Your task to perform on an android device: Search for Italian restaurants on Maps Image 0: 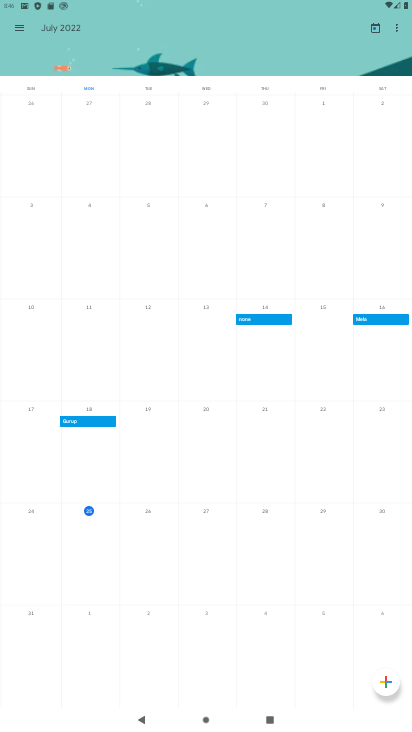
Step 0: press home button
Your task to perform on an android device: Search for Italian restaurants on Maps Image 1: 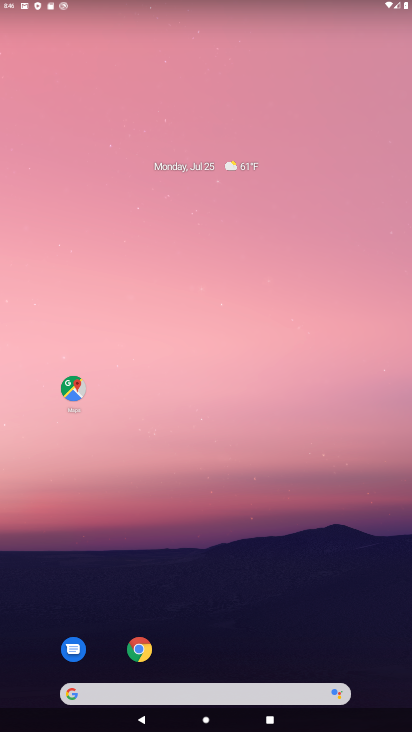
Step 1: click (75, 394)
Your task to perform on an android device: Search for Italian restaurants on Maps Image 2: 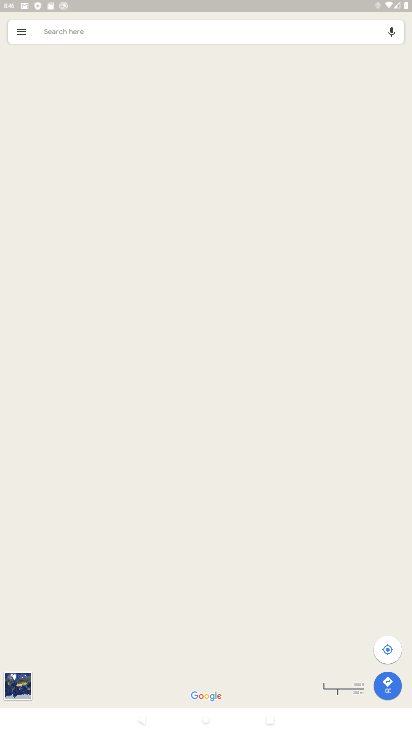
Step 2: click (231, 30)
Your task to perform on an android device: Search for Italian restaurants on Maps Image 3: 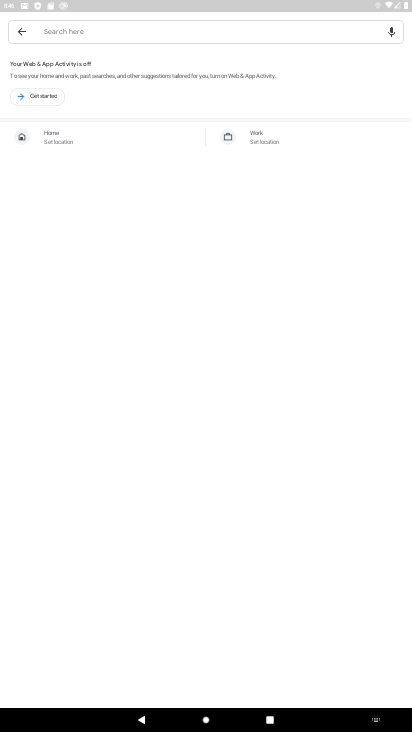
Step 3: type " Italian restaurants"
Your task to perform on an android device: Search for Italian restaurants on Maps Image 4: 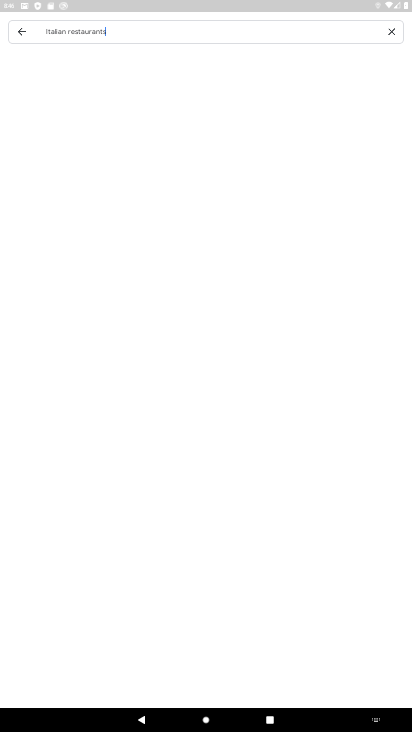
Step 4: press enter
Your task to perform on an android device: Search for Italian restaurants on Maps Image 5: 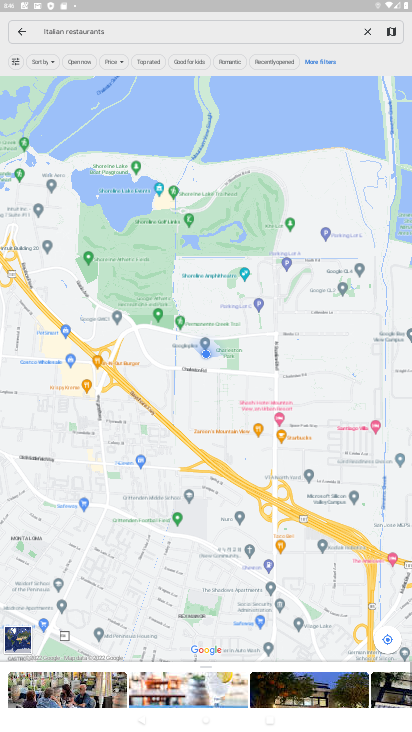
Step 5: task complete